Your task to perform on an android device: Go to Google Image 0: 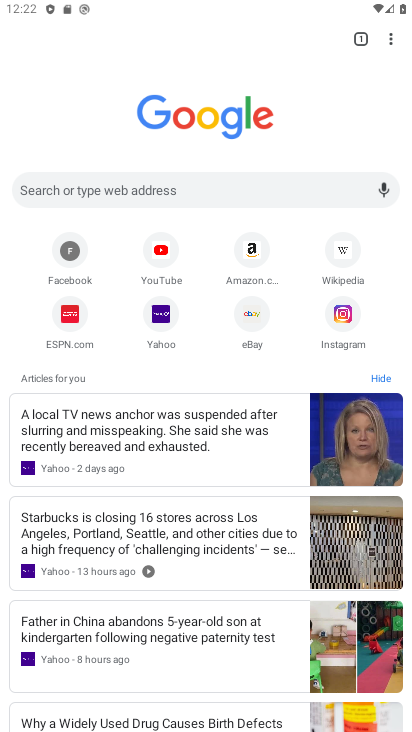
Step 0: drag from (220, 394) to (186, 231)
Your task to perform on an android device: Go to Google Image 1: 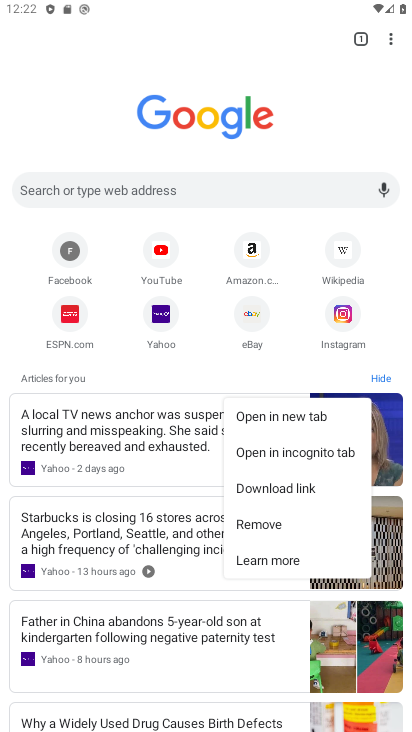
Step 1: task complete